Your task to perform on an android device: Open location settings Image 0: 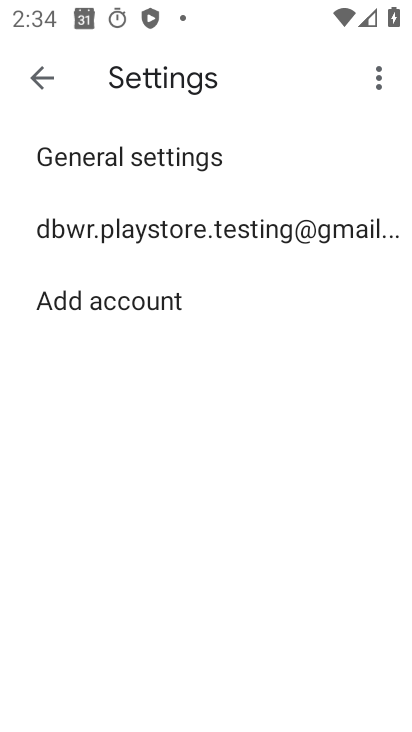
Step 0: press back button
Your task to perform on an android device: Open location settings Image 1: 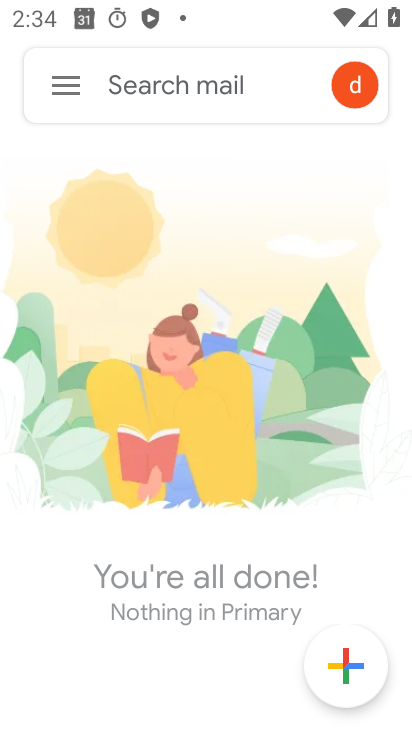
Step 1: press home button
Your task to perform on an android device: Open location settings Image 2: 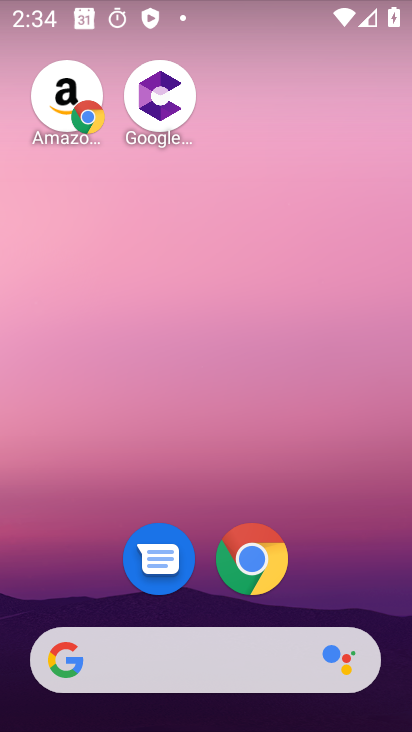
Step 2: drag from (336, 572) to (266, 20)
Your task to perform on an android device: Open location settings Image 3: 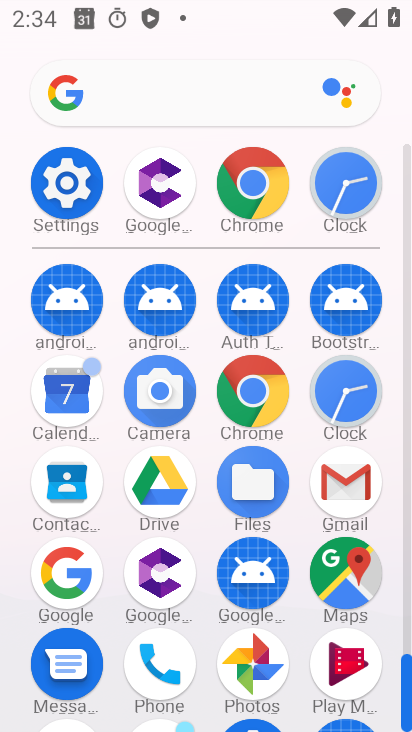
Step 3: click (67, 174)
Your task to perform on an android device: Open location settings Image 4: 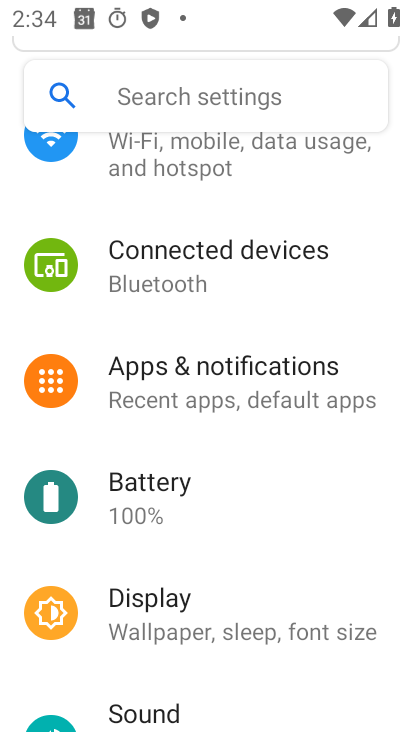
Step 4: drag from (321, 272) to (295, 695)
Your task to perform on an android device: Open location settings Image 5: 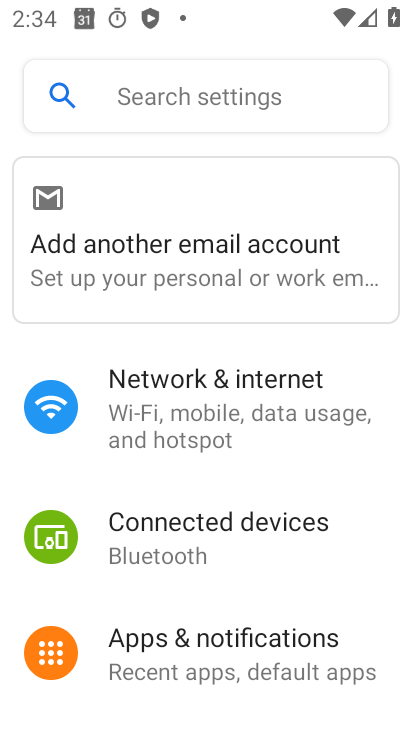
Step 5: drag from (330, 445) to (346, 168)
Your task to perform on an android device: Open location settings Image 6: 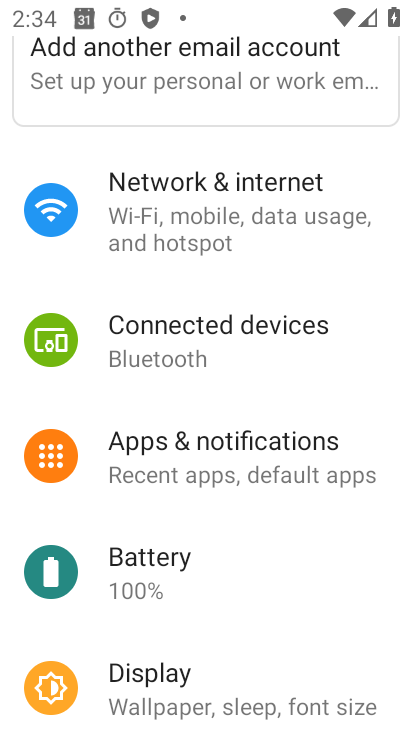
Step 6: drag from (310, 646) to (319, 158)
Your task to perform on an android device: Open location settings Image 7: 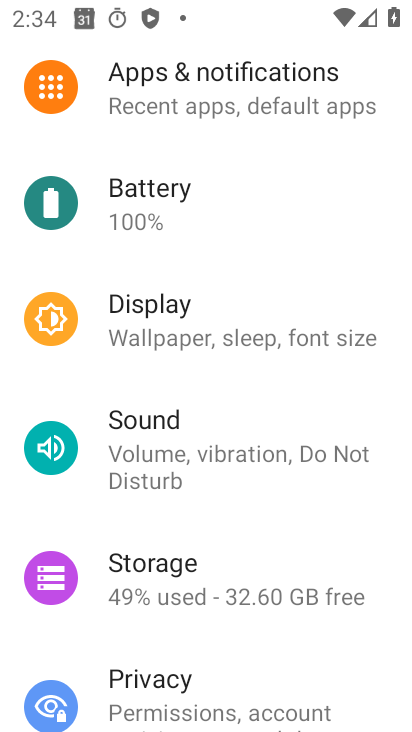
Step 7: drag from (247, 264) to (258, 173)
Your task to perform on an android device: Open location settings Image 8: 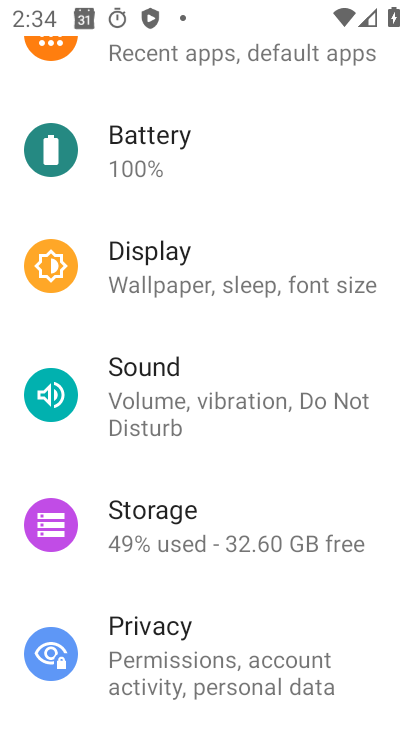
Step 8: drag from (275, 650) to (294, 159)
Your task to perform on an android device: Open location settings Image 9: 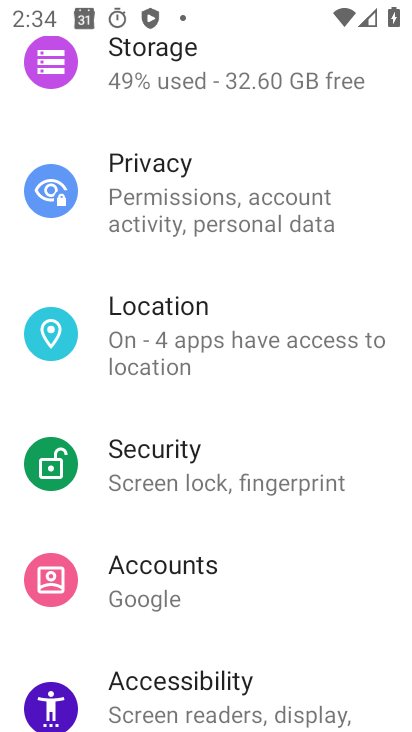
Step 9: click (205, 329)
Your task to perform on an android device: Open location settings Image 10: 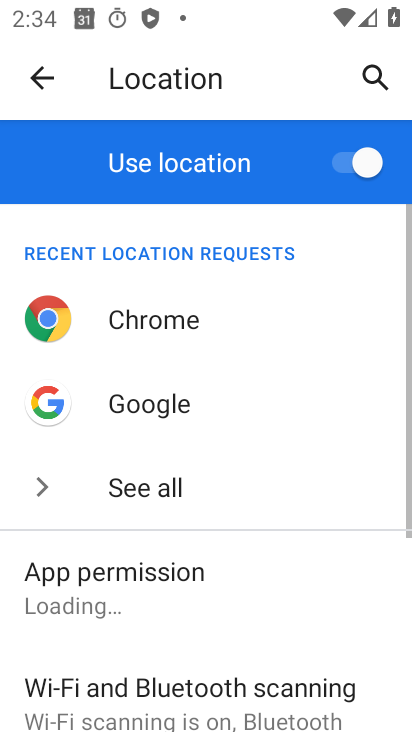
Step 10: drag from (196, 594) to (261, 219)
Your task to perform on an android device: Open location settings Image 11: 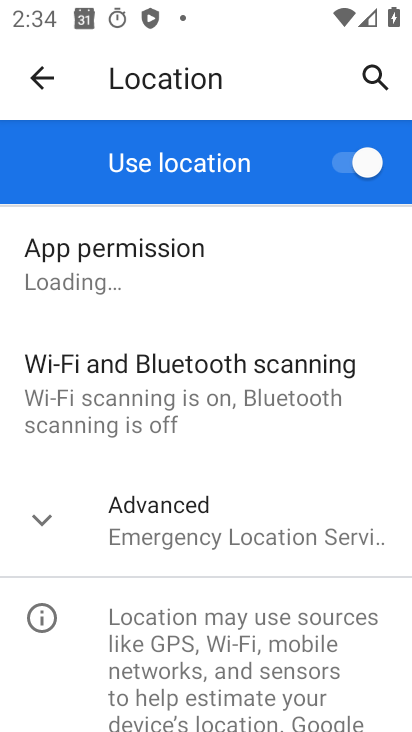
Step 11: click (40, 502)
Your task to perform on an android device: Open location settings Image 12: 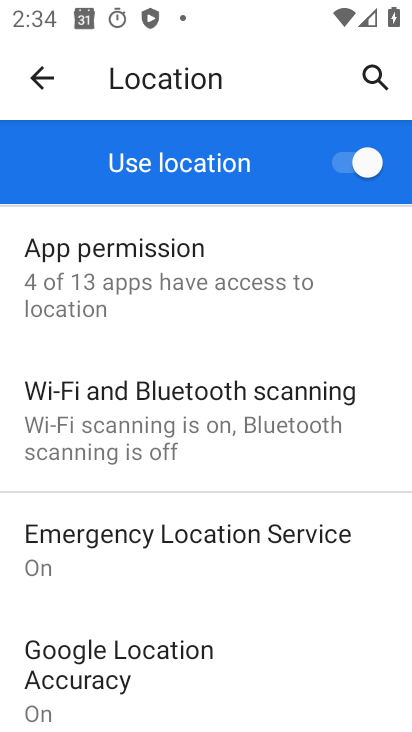
Step 12: task complete